Your task to perform on an android device: Go to Google maps Image 0: 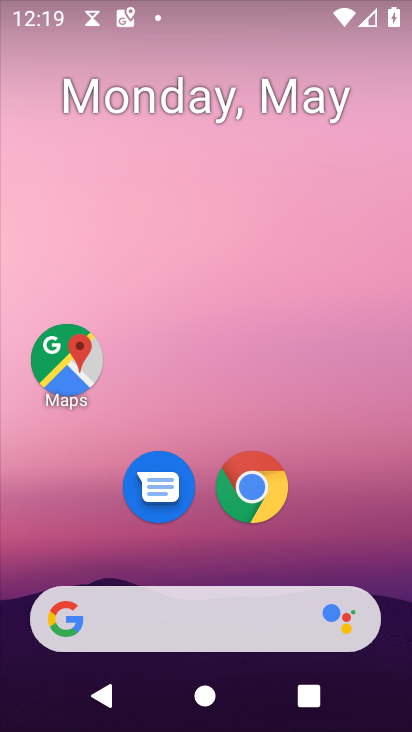
Step 0: drag from (215, 554) to (227, 44)
Your task to perform on an android device: Go to Google maps Image 1: 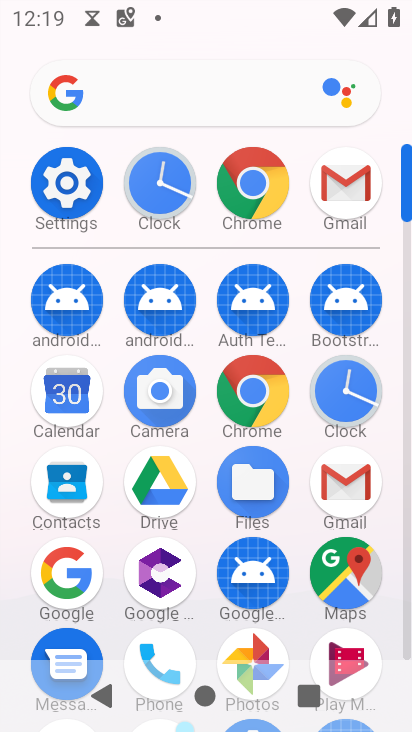
Step 1: click (348, 580)
Your task to perform on an android device: Go to Google maps Image 2: 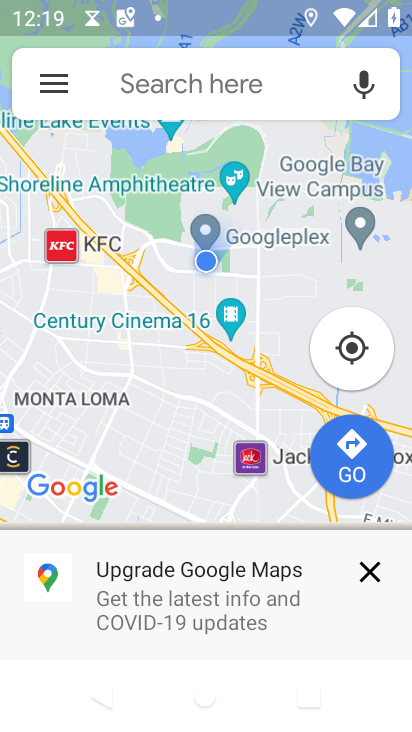
Step 2: task complete